Your task to perform on an android device: Search for seafood restaurants on Google Maps Image 0: 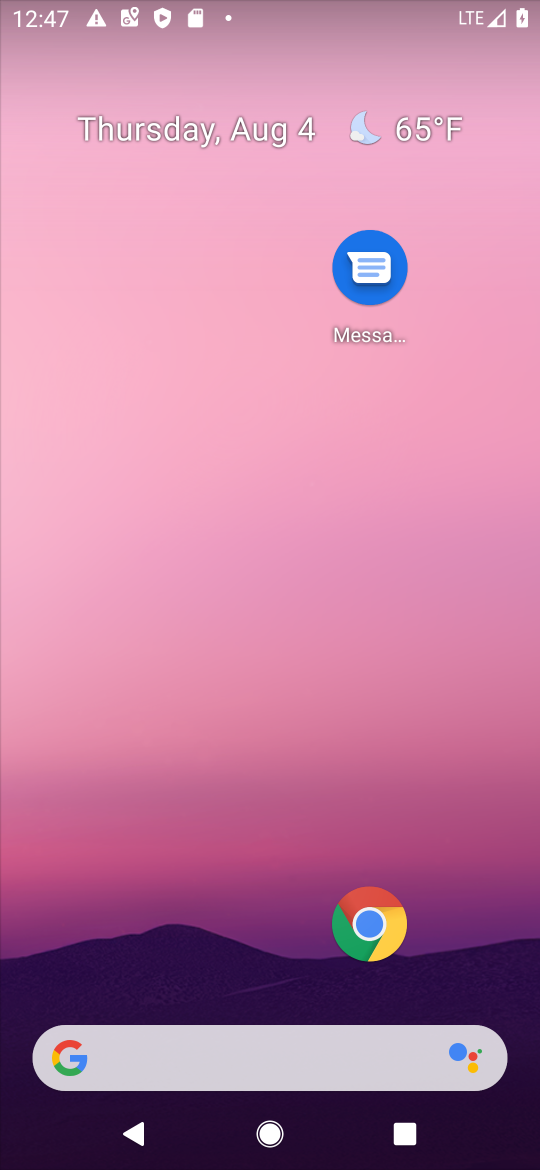
Step 0: drag from (292, 492) to (355, 21)
Your task to perform on an android device: Search for seafood restaurants on Google Maps Image 1: 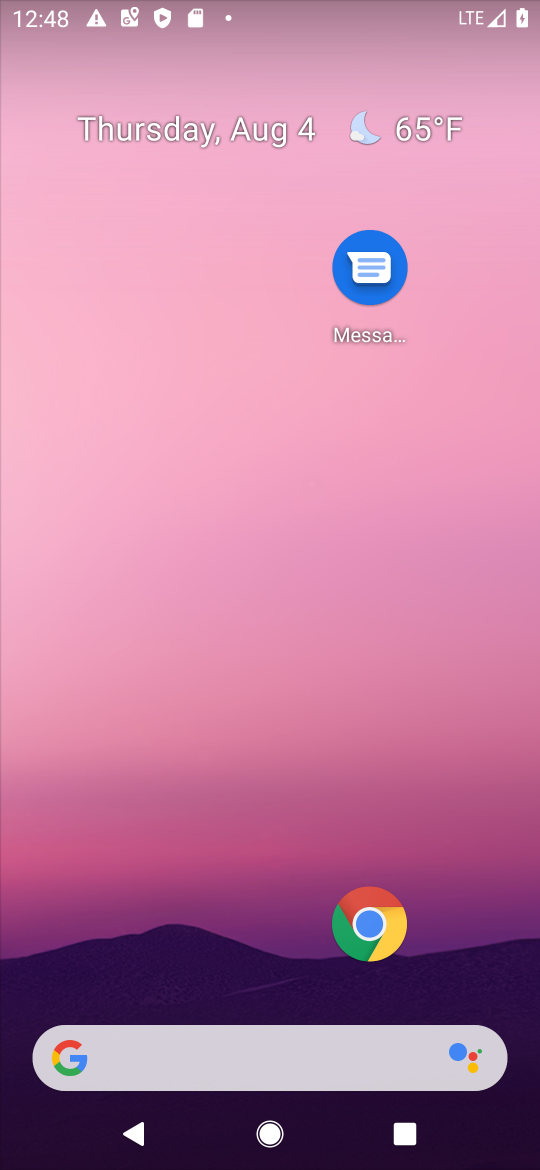
Step 1: drag from (130, 888) to (337, 124)
Your task to perform on an android device: Search for seafood restaurants on Google Maps Image 2: 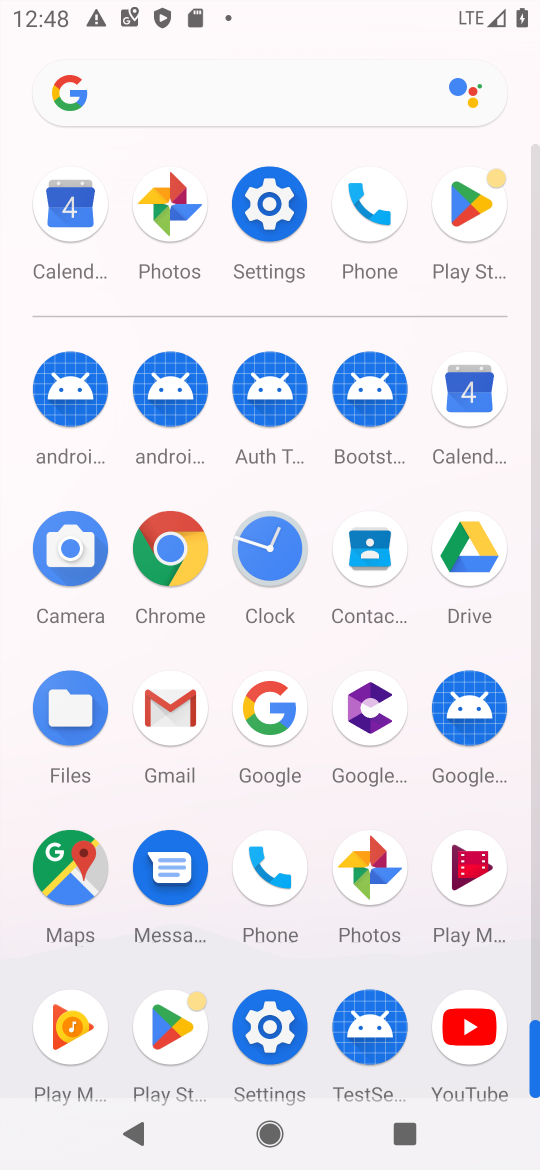
Step 2: click (57, 856)
Your task to perform on an android device: Search for seafood restaurants on Google Maps Image 3: 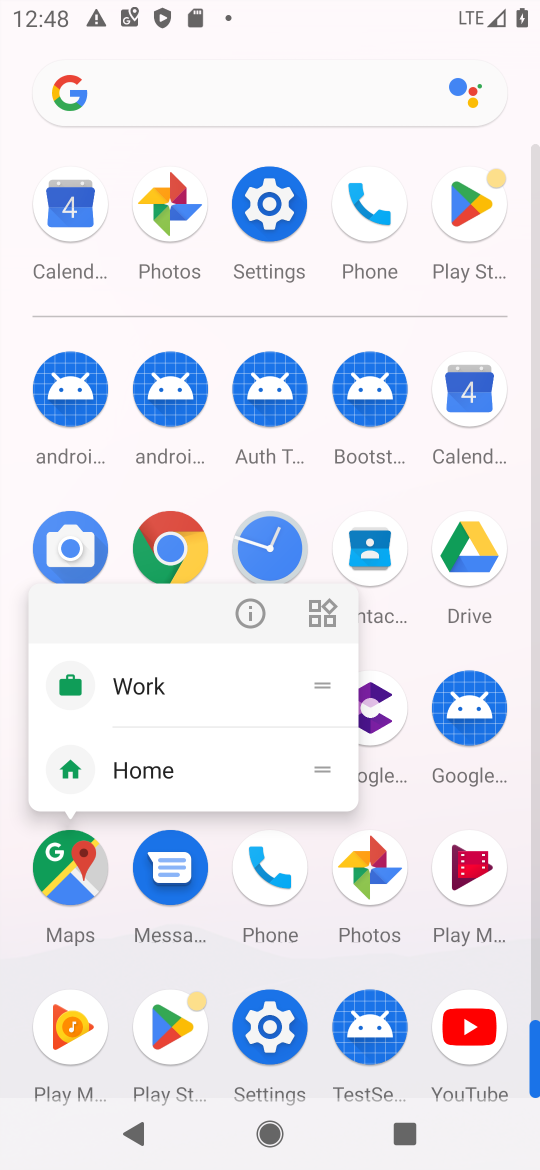
Step 3: click (94, 891)
Your task to perform on an android device: Search for seafood restaurants on Google Maps Image 4: 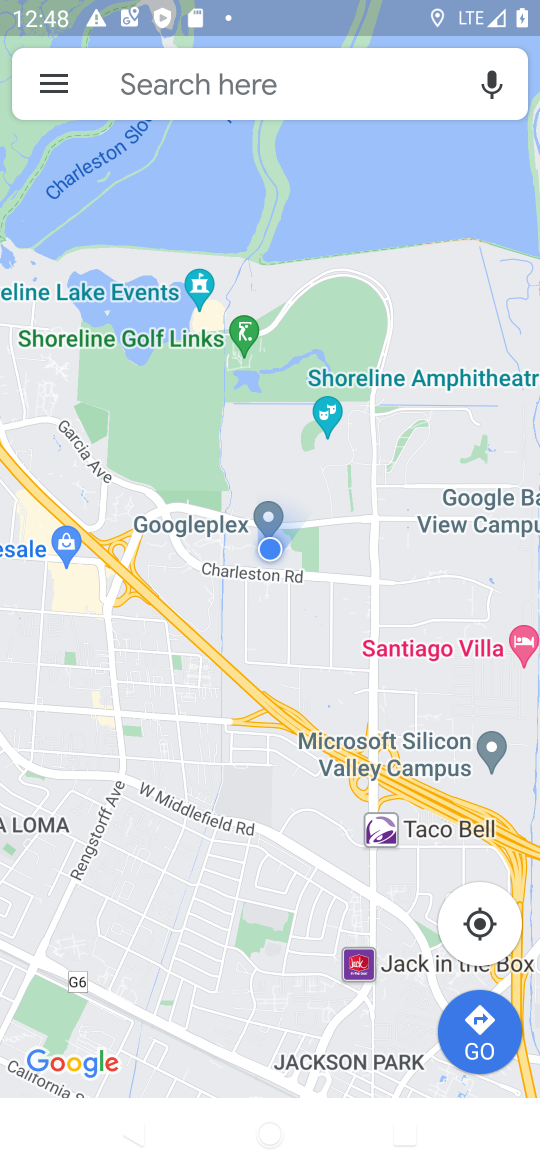
Step 4: click (152, 73)
Your task to perform on an android device: Search for seafood restaurants on Google Maps Image 5: 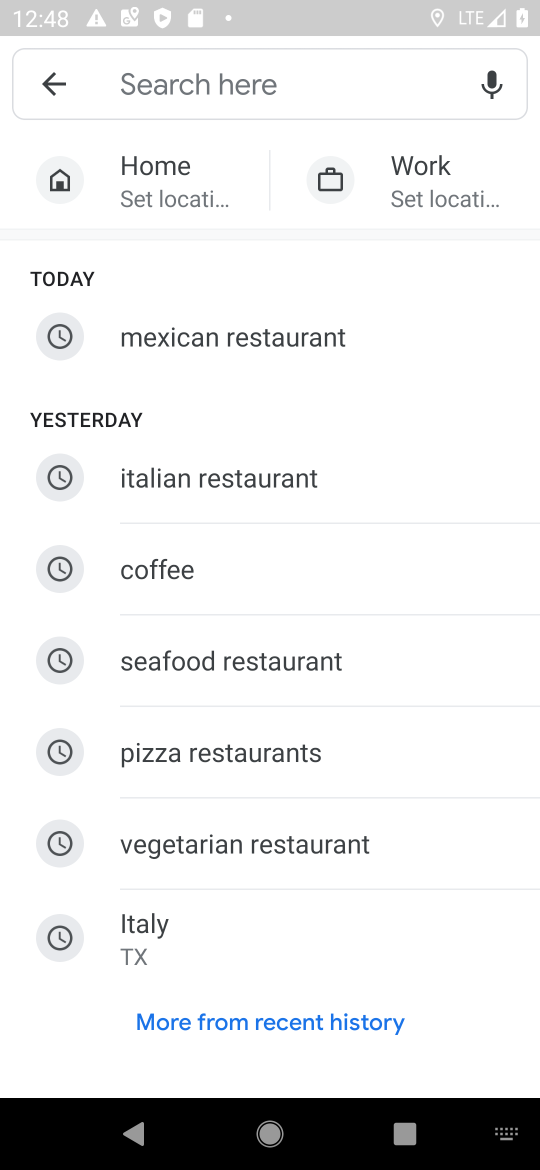
Step 5: click (217, 670)
Your task to perform on an android device: Search for seafood restaurants on Google Maps Image 6: 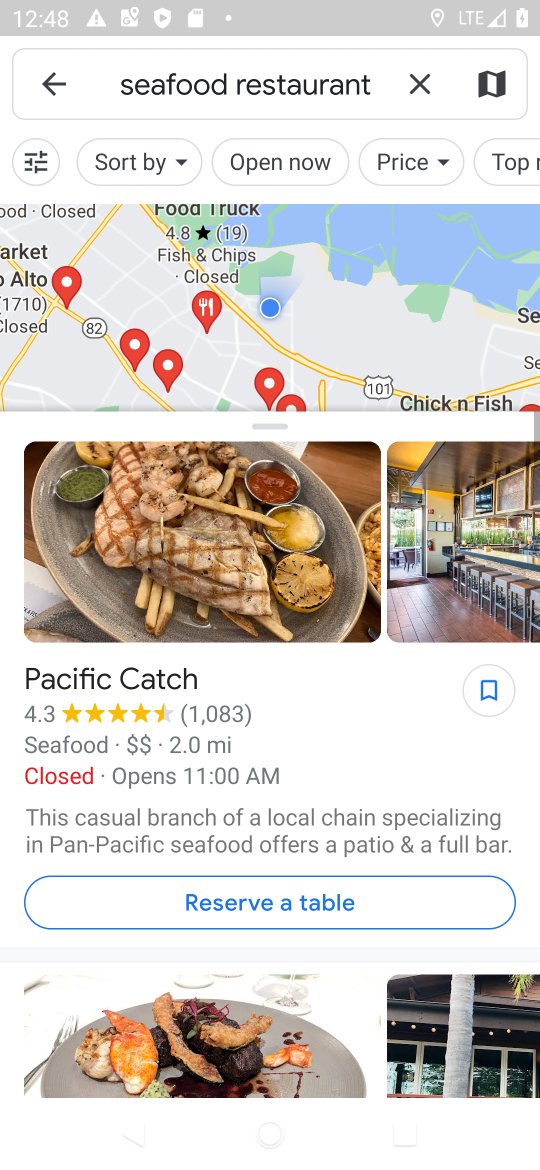
Step 6: task complete